Your task to perform on an android device: make emails show in primary in the gmail app Image 0: 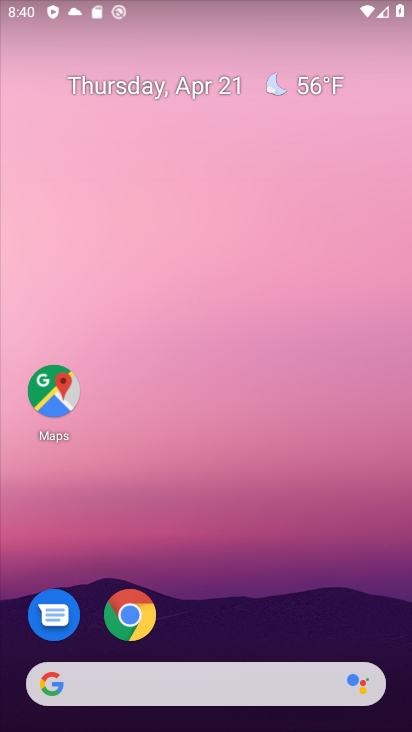
Step 0: drag from (289, 637) to (131, 0)
Your task to perform on an android device: make emails show in primary in the gmail app Image 1: 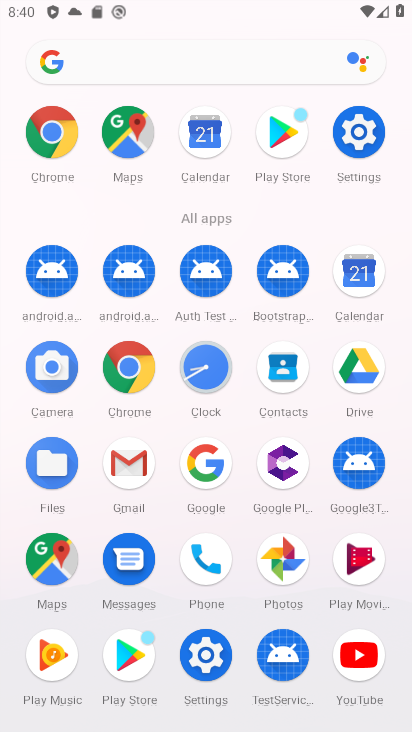
Step 1: click (136, 474)
Your task to perform on an android device: make emails show in primary in the gmail app Image 2: 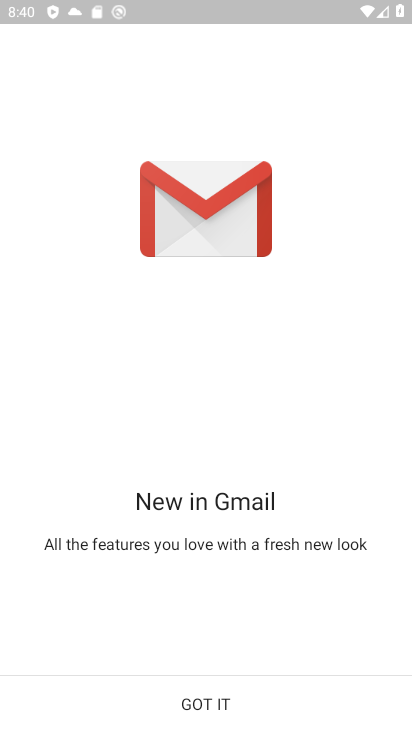
Step 2: click (191, 719)
Your task to perform on an android device: make emails show in primary in the gmail app Image 3: 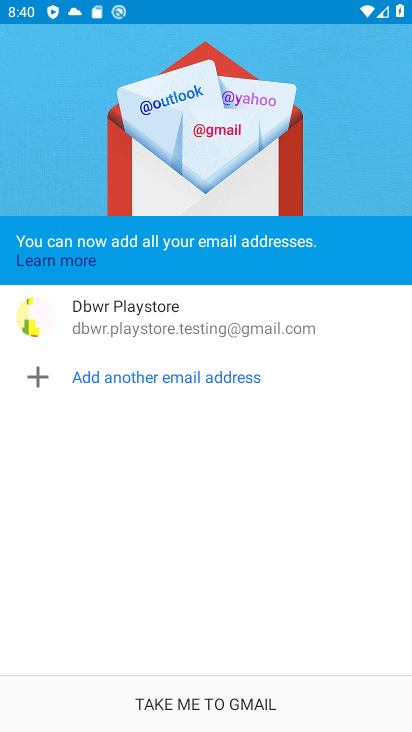
Step 3: click (235, 684)
Your task to perform on an android device: make emails show in primary in the gmail app Image 4: 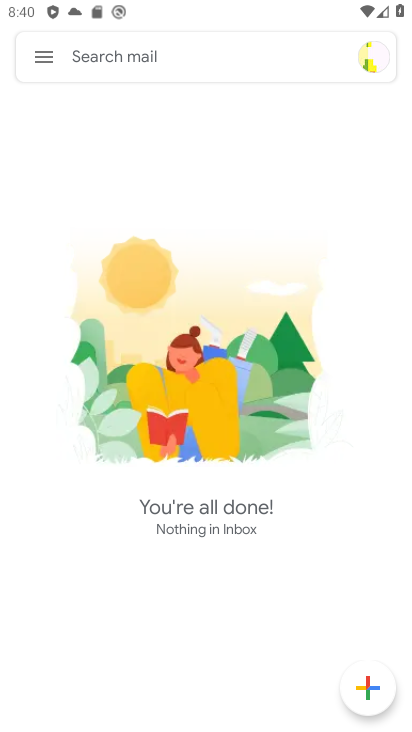
Step 4: click (46, 54)
Your task to perform on an android device: make emails show in primary in the gmail app Image 5: 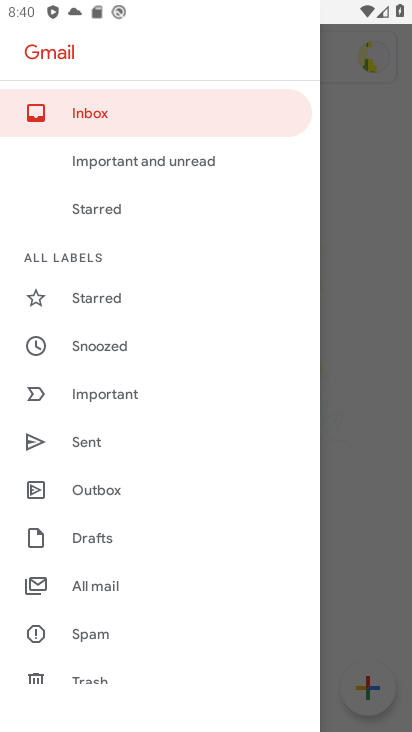
Step 5: drag from (138, 605) to (183, 192)
Your task to perform on an android device: make emails show in primary in the gmail app Image 6: 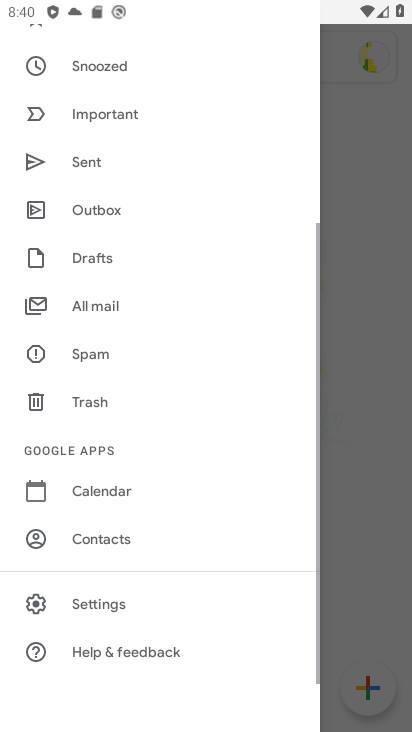
Step 6: click (124, 610)
Your task to perform on an android device: make emails show in primary in the gmail app Image 7: 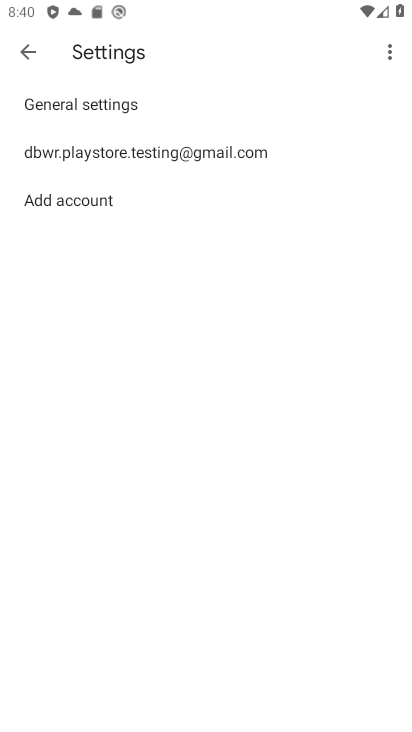
Step 7: click (110, 154)
Your task to perform on an android device: make emails show in primary in the gmail app Image 8: 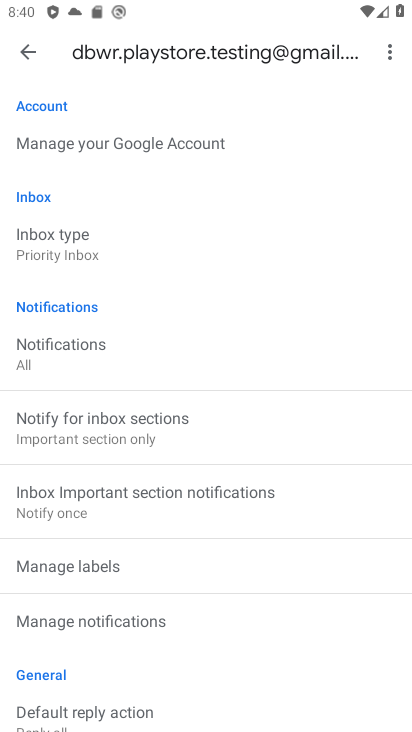
Step 8: task complete